Your task to perform on an android device: Open calendar and show me the second week of next month Image 0: 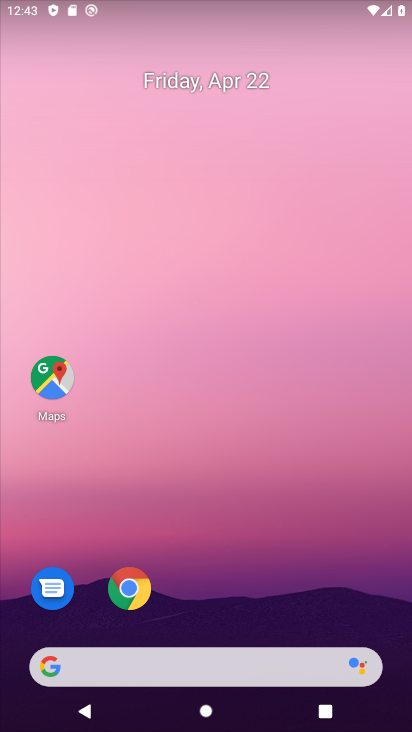
Step 0: click (276, 191)
Your task to perform on an android device: Open calendar and show me the second week of next month Image 1: 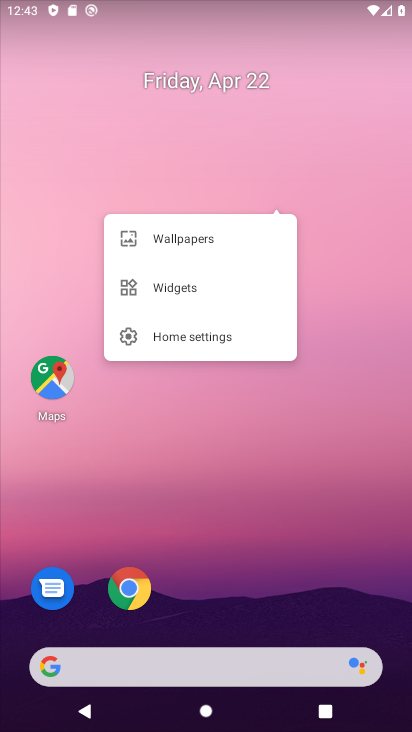
Step 1: click (329, 507)
Your task to perform on an android device: Open calendar and show me the second week of next month Image 2: 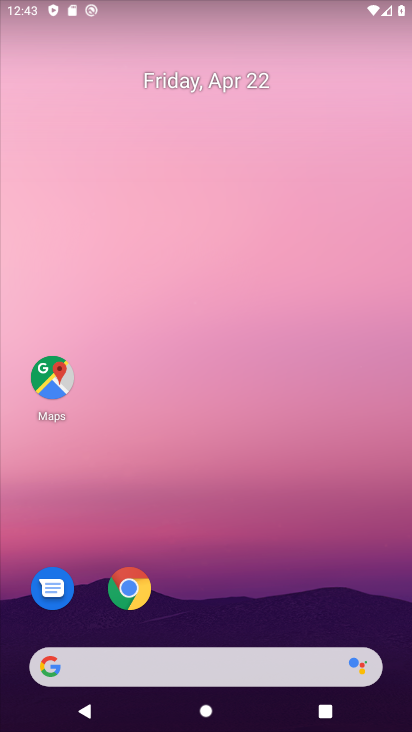
Step 2: drag from (277, 698) to (252, 238)
Your task to perform on an android device: Open calendar and show me the second week of next month Image 3: 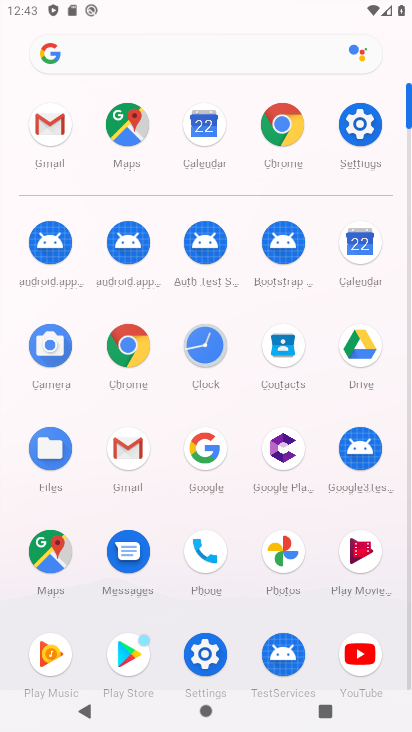
Step 3: click (347, 243)
Your task to perform on an android device: Open calendar and show me the second week of next month Image 4: 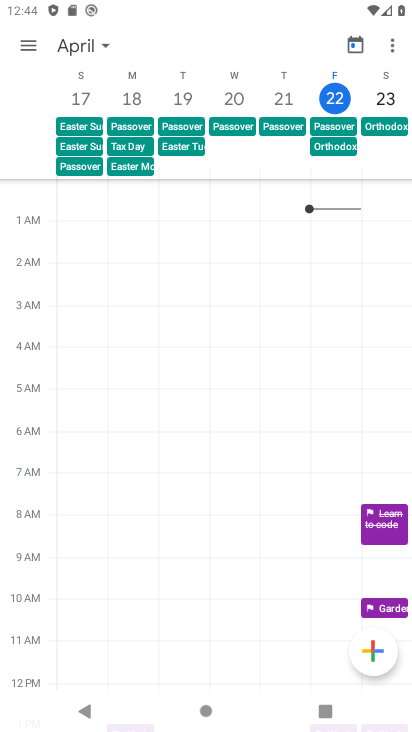
Step 4: click (47, 44)
Your task to perform on an android device: Open calendar and show me the second week of next month Image 5: 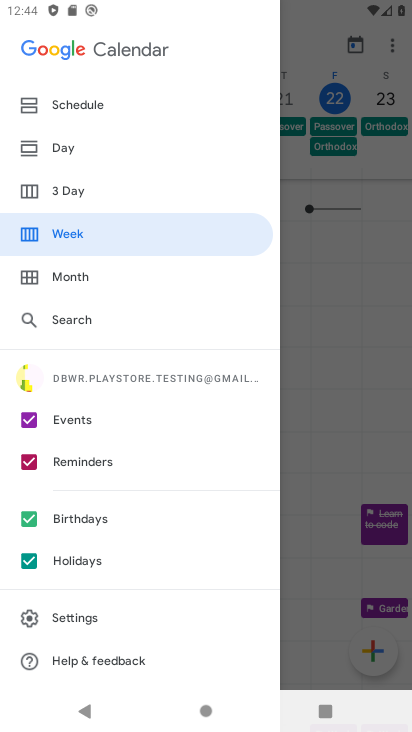
Step 5: click (76, 292)
Your task to perform on an android device: Open calendar and show me the second week of next month Image 6: 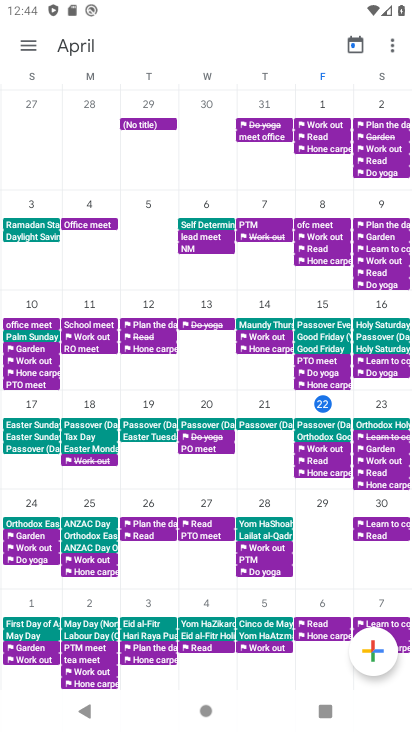
Step 6: drag from (393, 411) to (13, 442)
Your task to perform on an android device: Open calendar and show me the second week of next month Image 7: 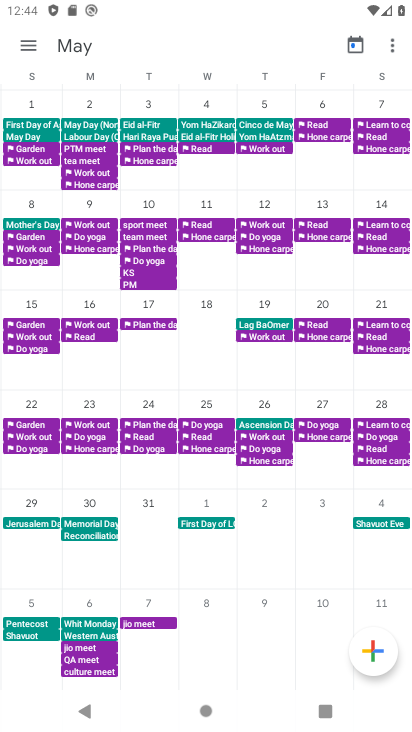
Step 7: click (93, 203)
Your task to perform on an android device: Open calendar and show me the second week of next month Image 8: 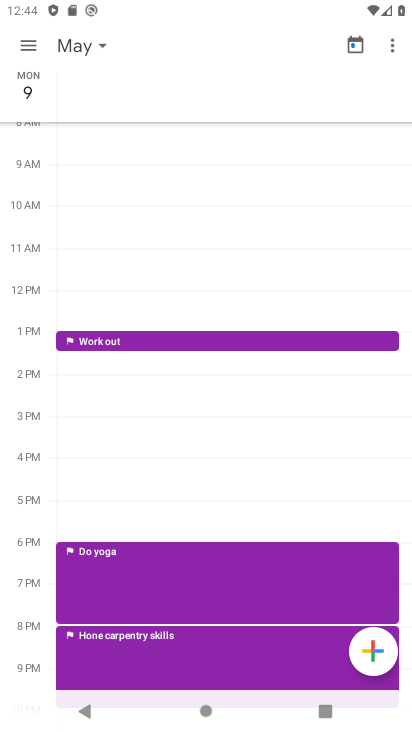
Step 8: task complete